Your task to perform on an android device: toggle notification dots Image 0: 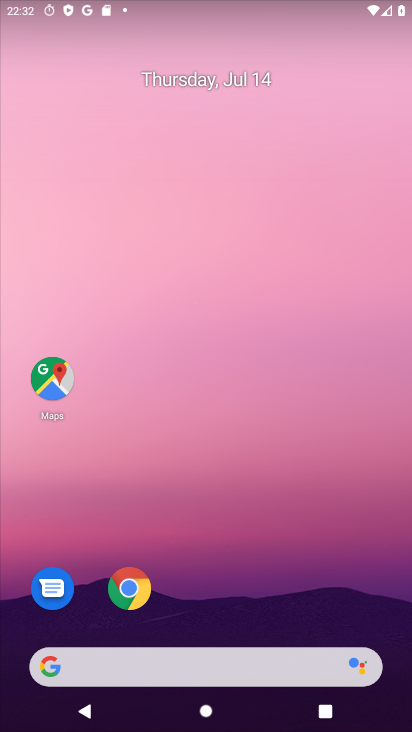
Step 0: drag from (226, 581) to (264, 137)
Your task to perform on an android device: toggle notification dots Image 1: 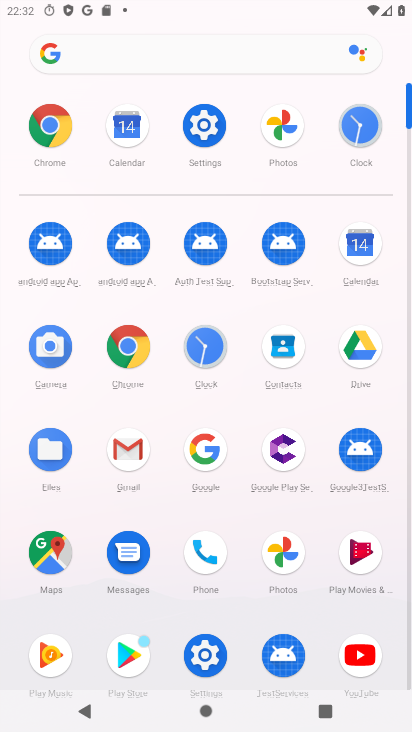
Step 1: click (199, 126)
Your task to perform on an android device: toggle notification dots Image 2: 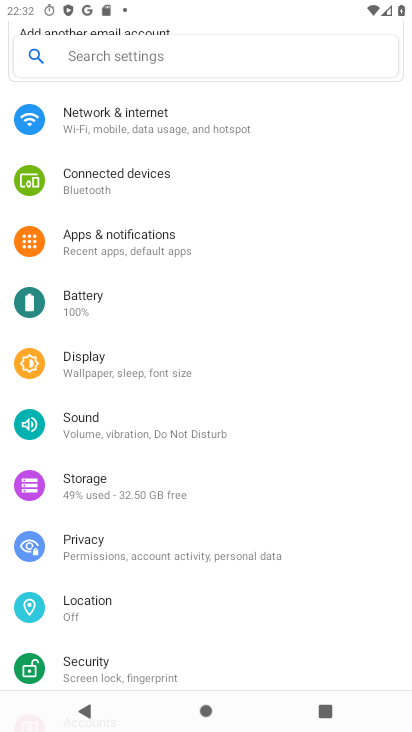
Step 2: click (159, 237)
Your task to perform on an android device: toggle notification dots Image 3: 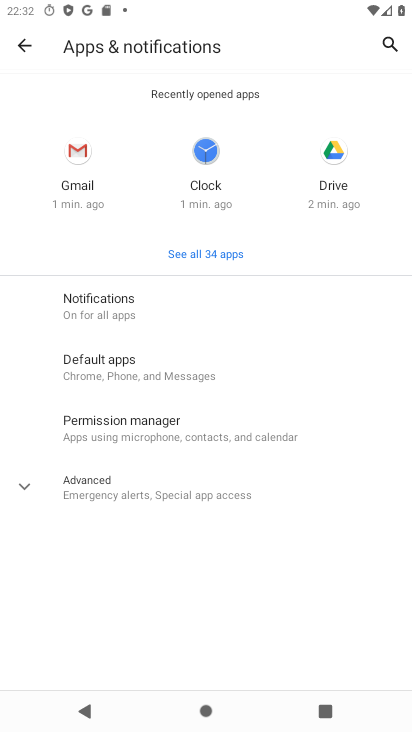
Step 3: click (104, 305)
Your task to perform on an android device: toggle notification dots Image 4: 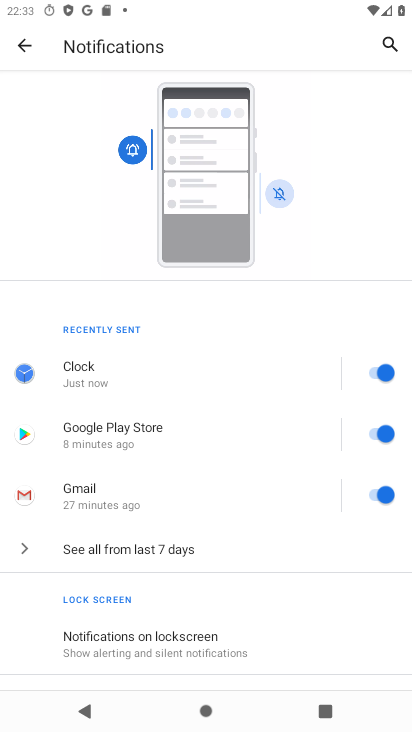
Step 4: drag from (173, 586) to (223, 179)
Your task to perform on an android device: toggle notification dots Image 5: 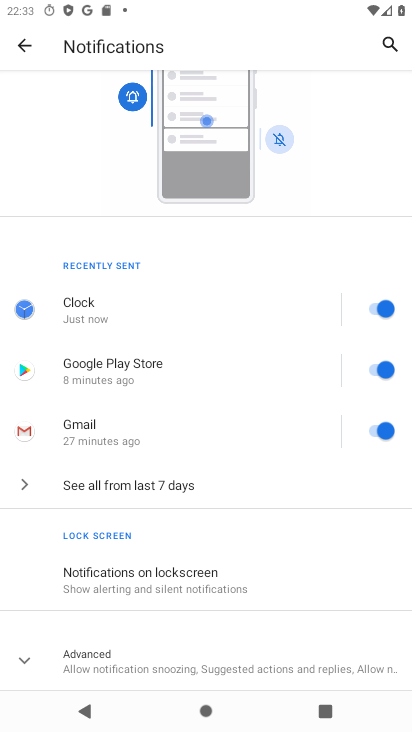
Step 5: click (100, 663)
Your task to perform on an android device: toggle notification dots Image 6: 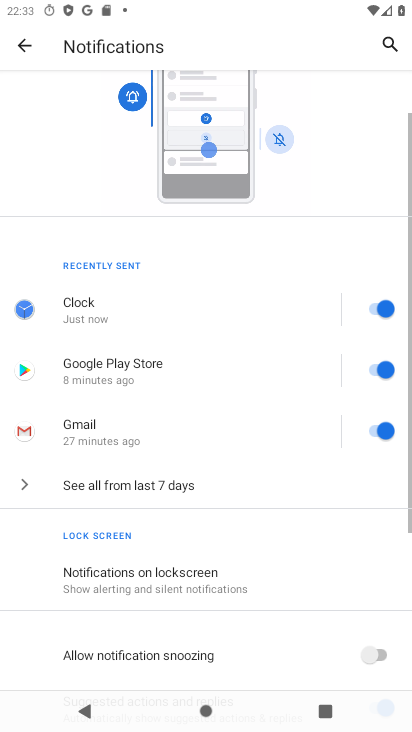
Step 6: drag from (275, 588) to (332, 132)
Your task to perform on an android device: toggle notification dots Image 7: 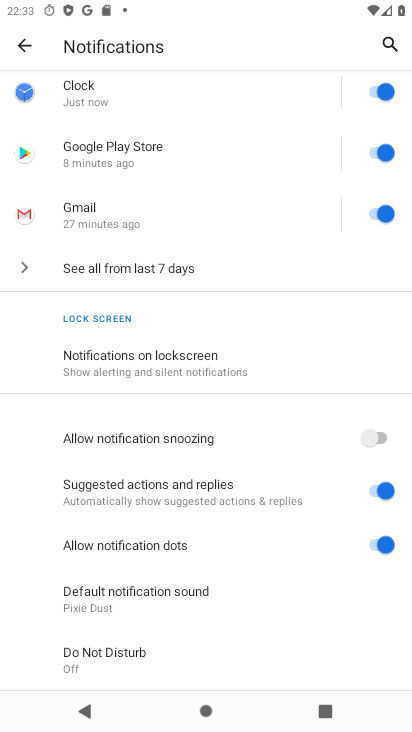
Step 7: click (385, 545)
Your task to perform on an android device: toggle notification dots Image 8: 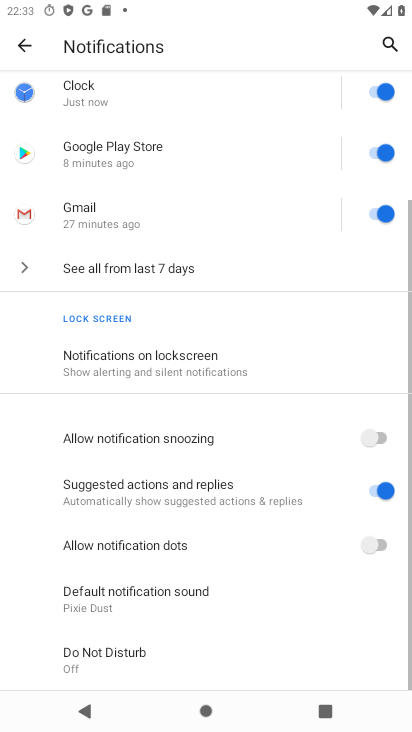
Step 8: task complete